Your task to perform on an android device: Is it going to rain tomorrow? Image 0: 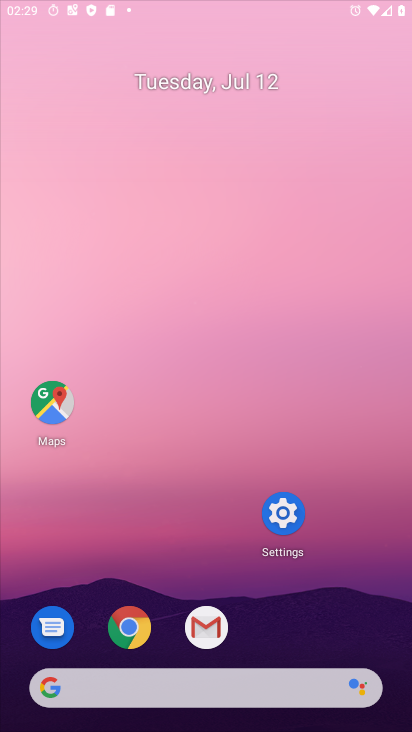
Step 0: press home button
Your task to perform on an android device: Is it going to rain tomorrow? Image 1: 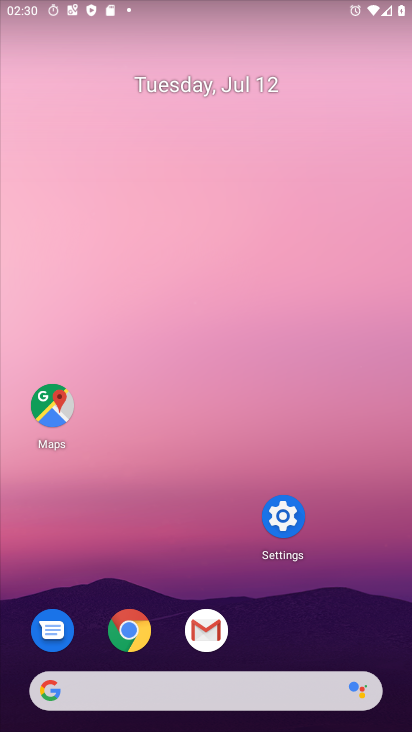
Step 1: click (204, 692)
Your task to perform on an android device: Is it going to rain tomorrow? Image 2: 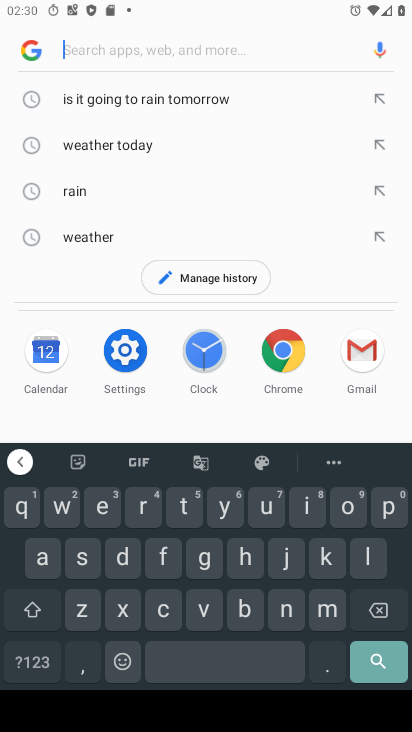
Step 2: click (165, 101)
Your task to perform on an android device: Is it going to rain tomorrow? Image 3: 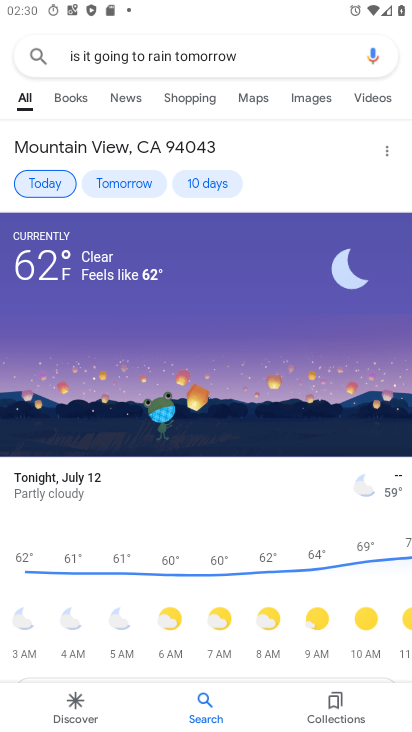
Step 3: click (124, 176)
Your task to perform on an android device: Is it going to rain tomorrow? Image 4: 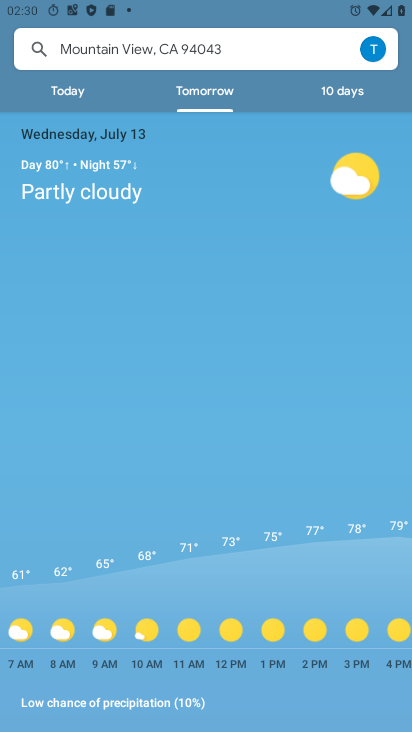
Step 4: task complete